Your task to perform on an android device: check data usage Image 0: 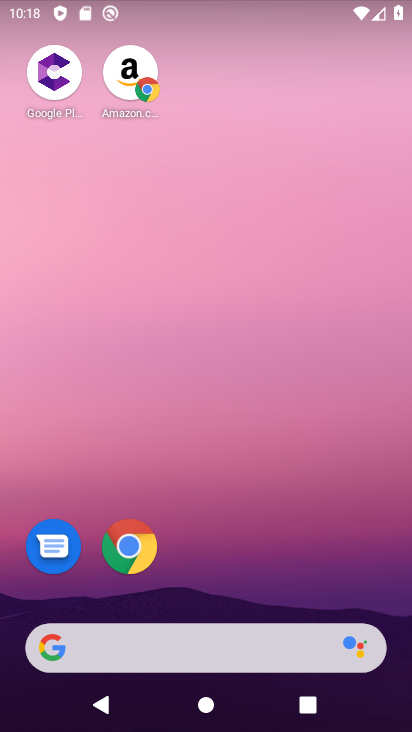
Step 0: drag from (248, 560) to (256, 63)
Your task to perform on an android device: check data usage Image 1: 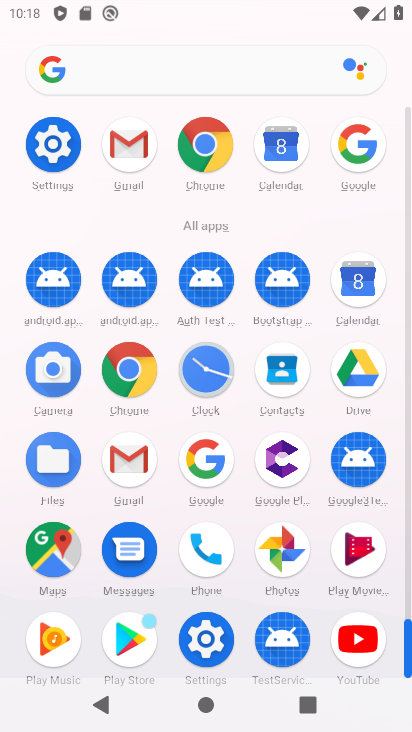
Step 1: click (55, 143)
Your task to perform on an android device: check data usage Image 2: 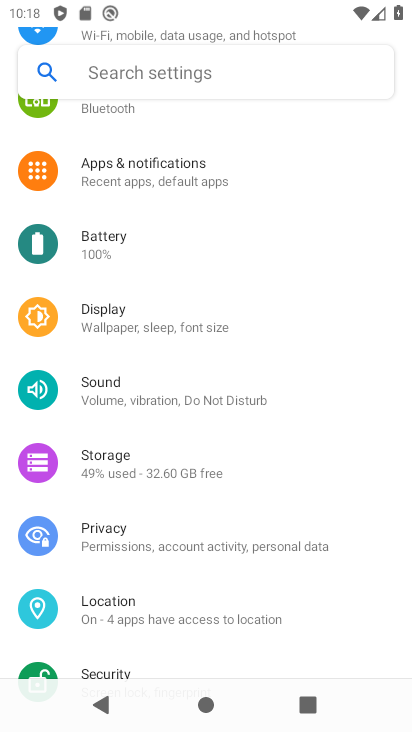
Step 2: drag from (157, 230) to (163, 315)
Your task to perform on an android device: check data usage Image 3: 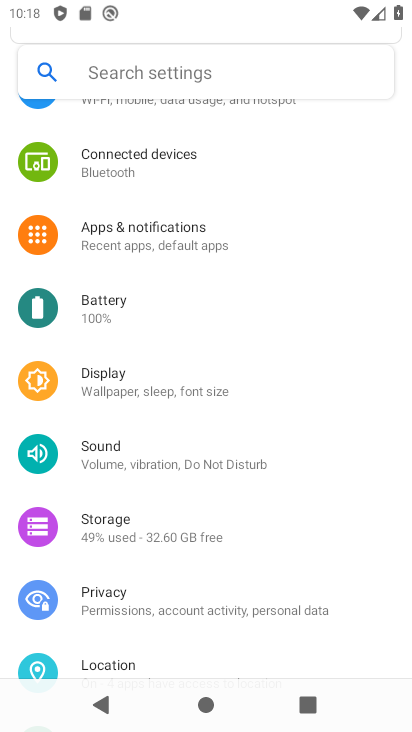
Step 3: drag from (194, 204) to (203, 354)
Your task to perform on an android device: check data usage Image 4: 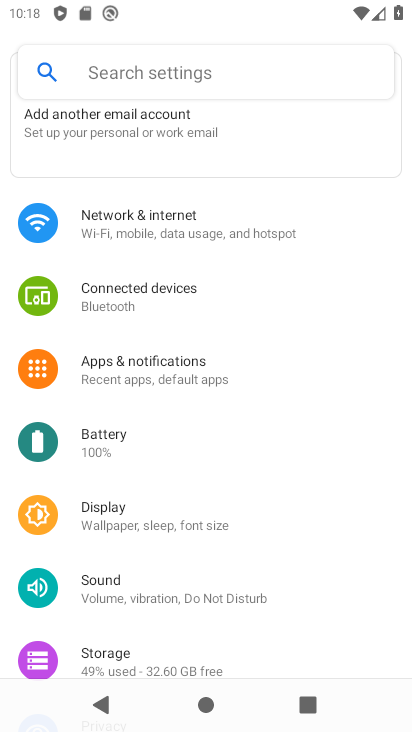
Step 4: click (125, 211)
Your task to perform on an android device: check data usage Image 5: 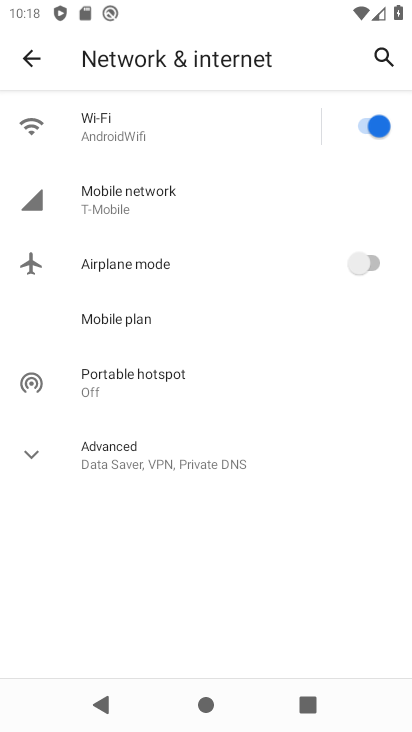
Step 5: click (139, 193)
Your task to perform on an android device: check data usage Image 6: 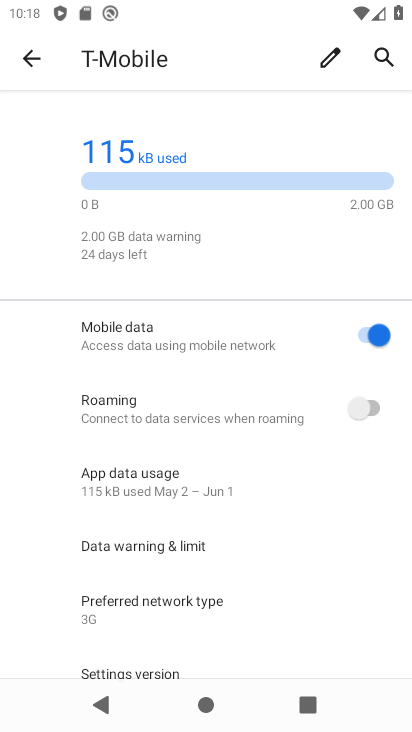
Step 6: task complete